Your task to perform on an android device: set the stopwatch Image 0: 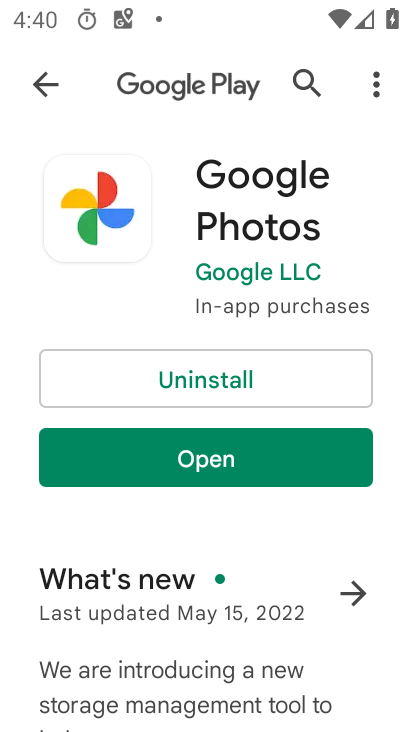
Step 0: press home button
Your task to perform on an android device: set the stopwatch Image 1: 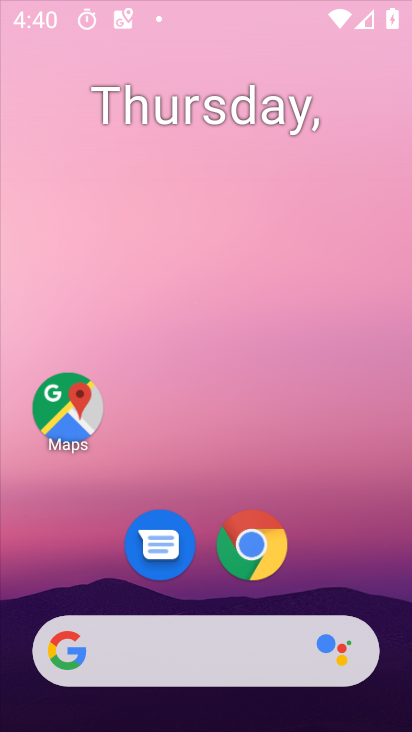
Step 1: drag from (214, 88) to (211, 130)
Your task to perform on an android device: set the stopwatch Image 2: 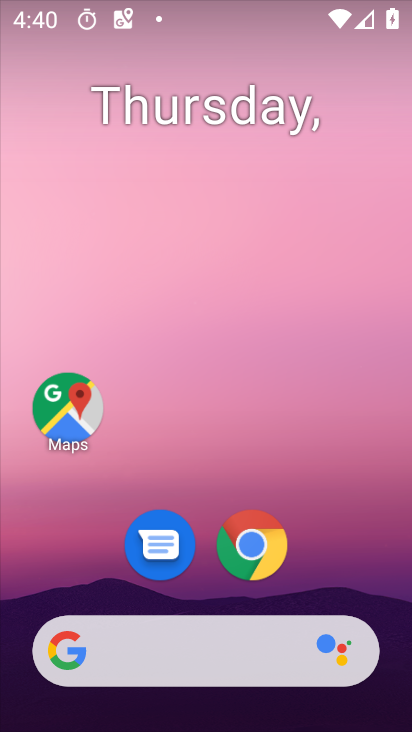
Step 2: drag from (225, 724) to (334, 423)
Your task to perform on an android device: set the stopwatch Image 3: 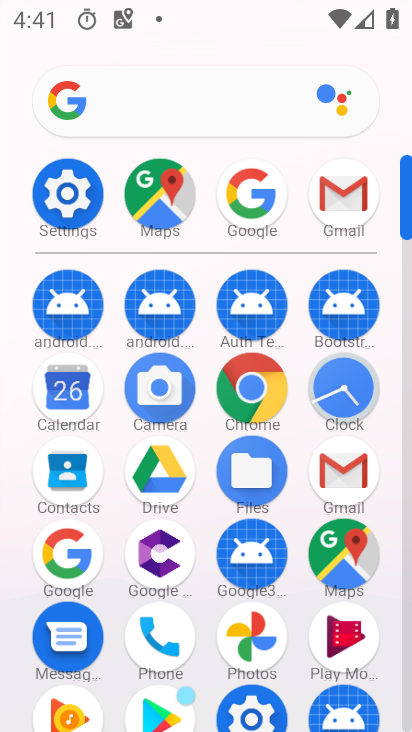
Step 3: click (342, 394)
Your task to perform on an android device: set the stopwatch Image 4: 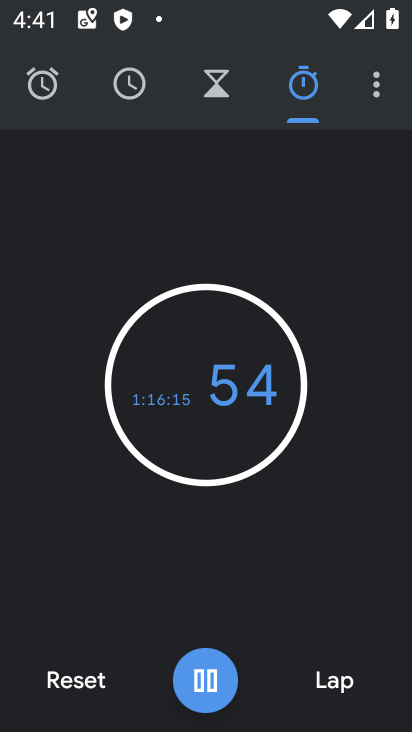
Step 4: click (231, 384)
Your task to perform on an android device: set the stopwatch Image 5: 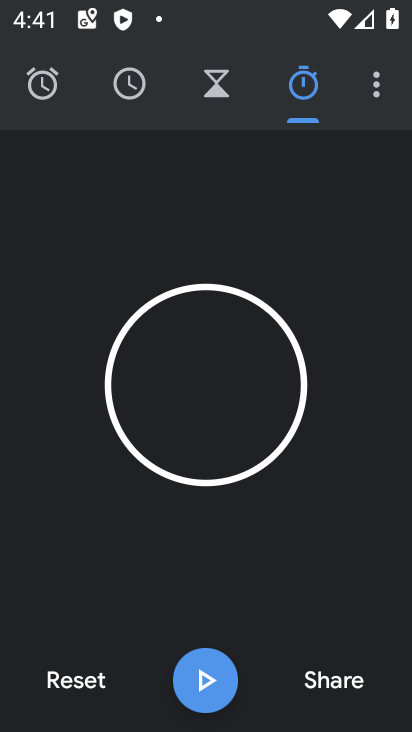
Step 5: type "8765"
Your task to perform on an android device: set the stopwatch Image 6: 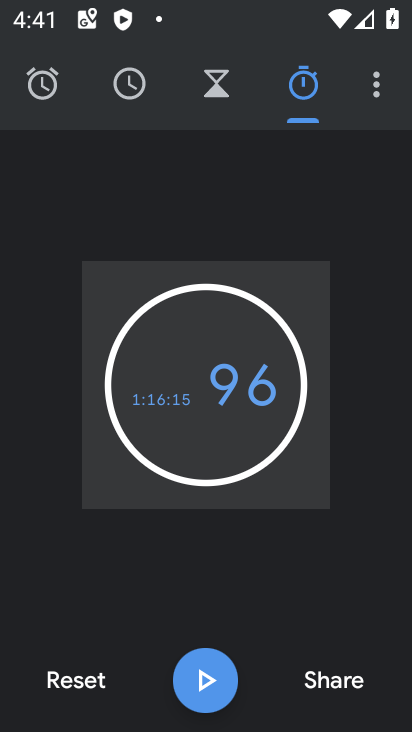
Step 6: type ""
Your task to perform on an android device: set the stopwatch Image 7: 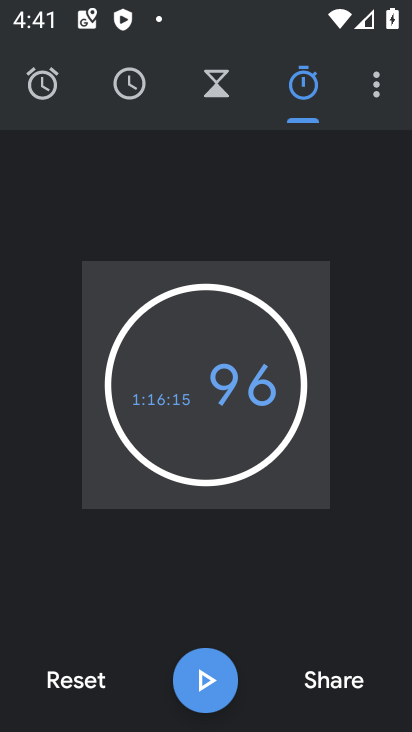
Step 7: click (308, 590)
Your task to perform on an android device: set the stopwatch Image 8: 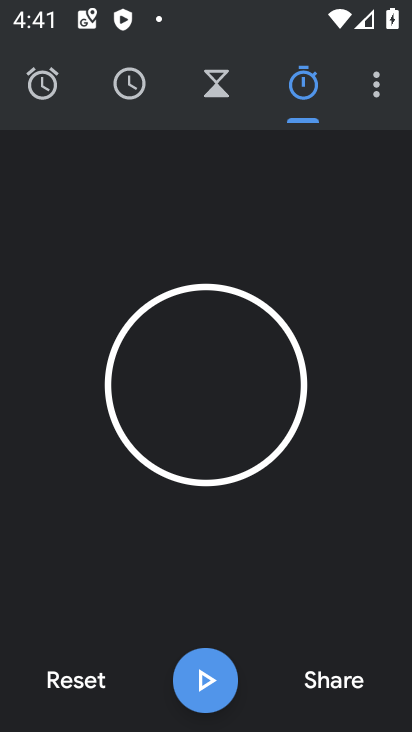
Step 8: click (206, 688)
Your task to perform on an android device: set the stopwatch Image 9: 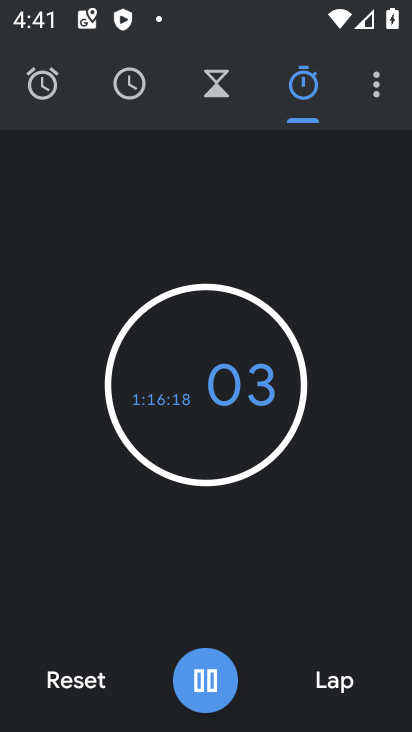
Step 9: task complete